Your task to perform on an android device: Open notification settings Image 0: 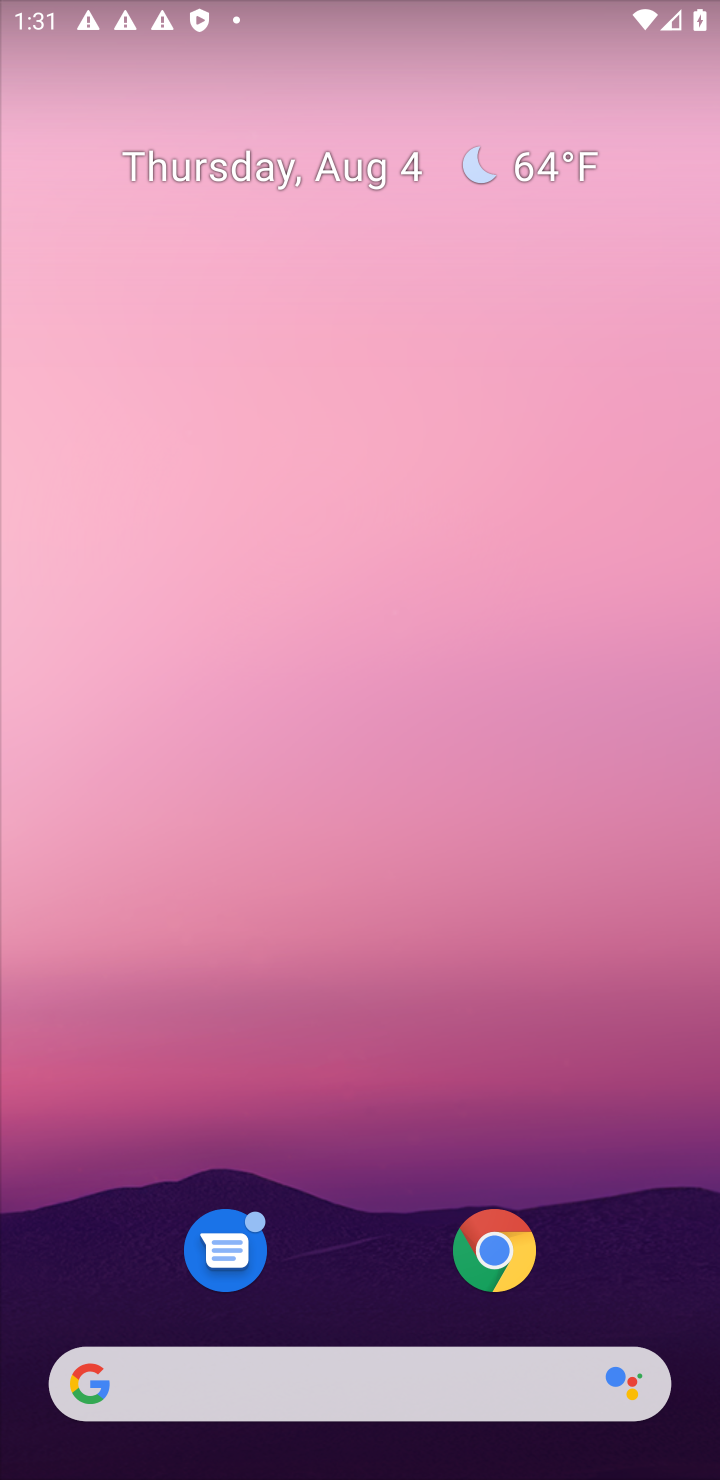
Step 0: drag from (376, 59) to (441, 31)
Your task to perform on an android device: Open notification settings Image 1: 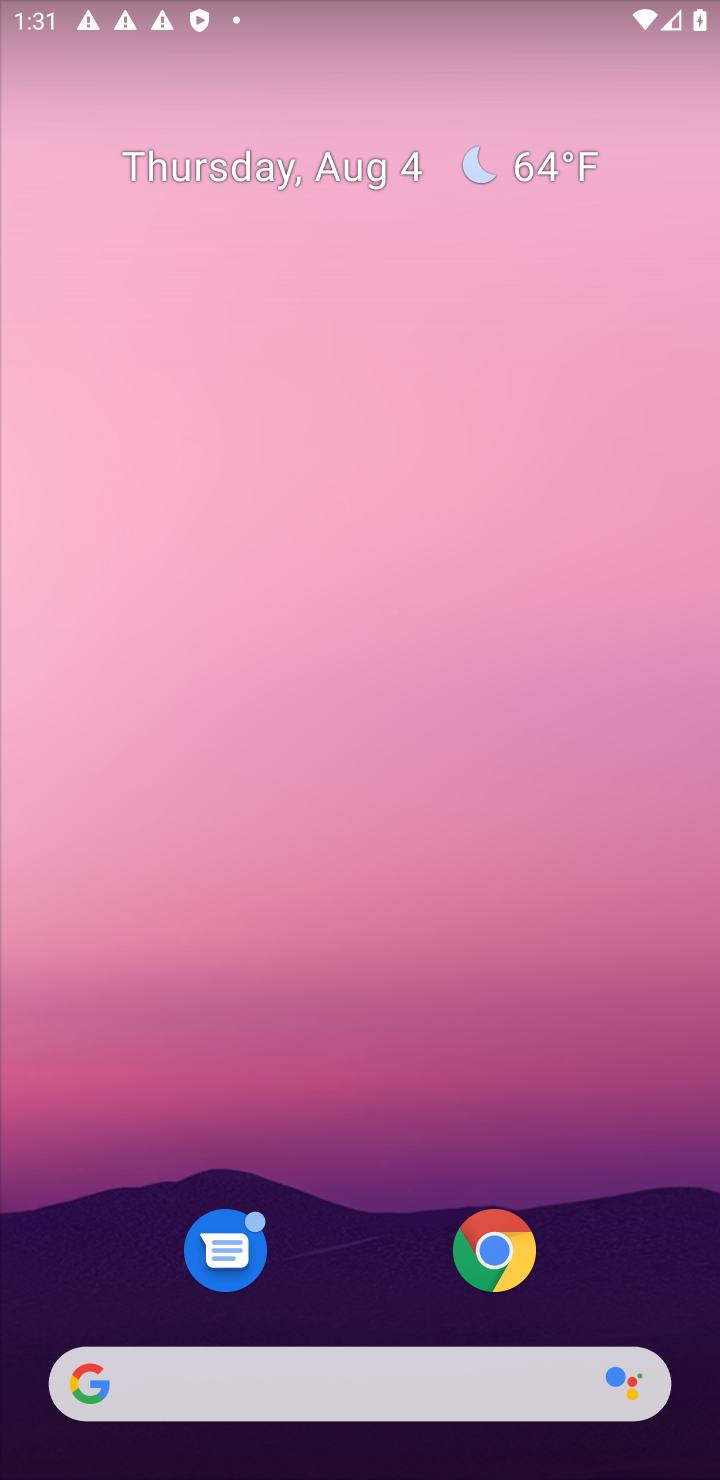
Step 1: drag from (394, 1175) to (394, 373)
Your task to perform on an android device: Open notification settings Image 2: 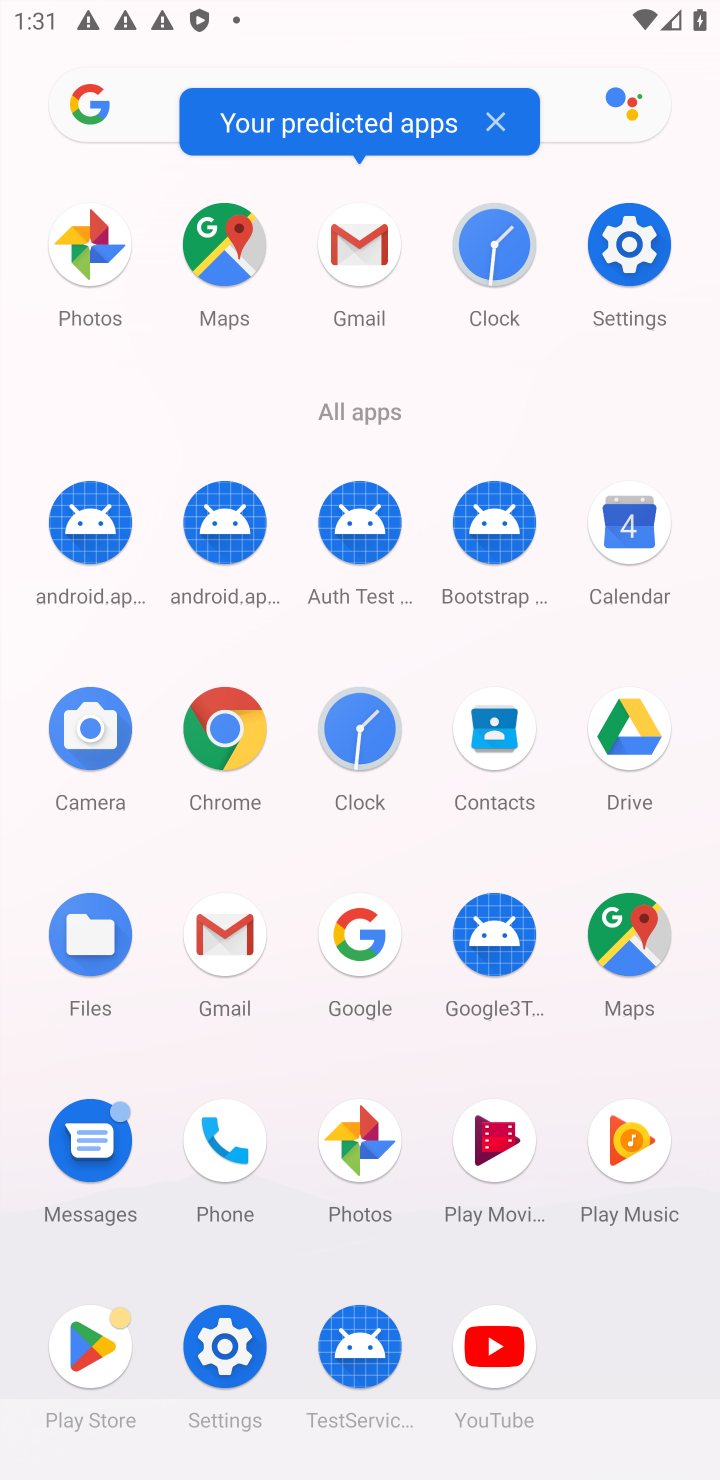
Step 2: click (619, 245)
Your task to perform on an android device: Open notification settings Image 3: 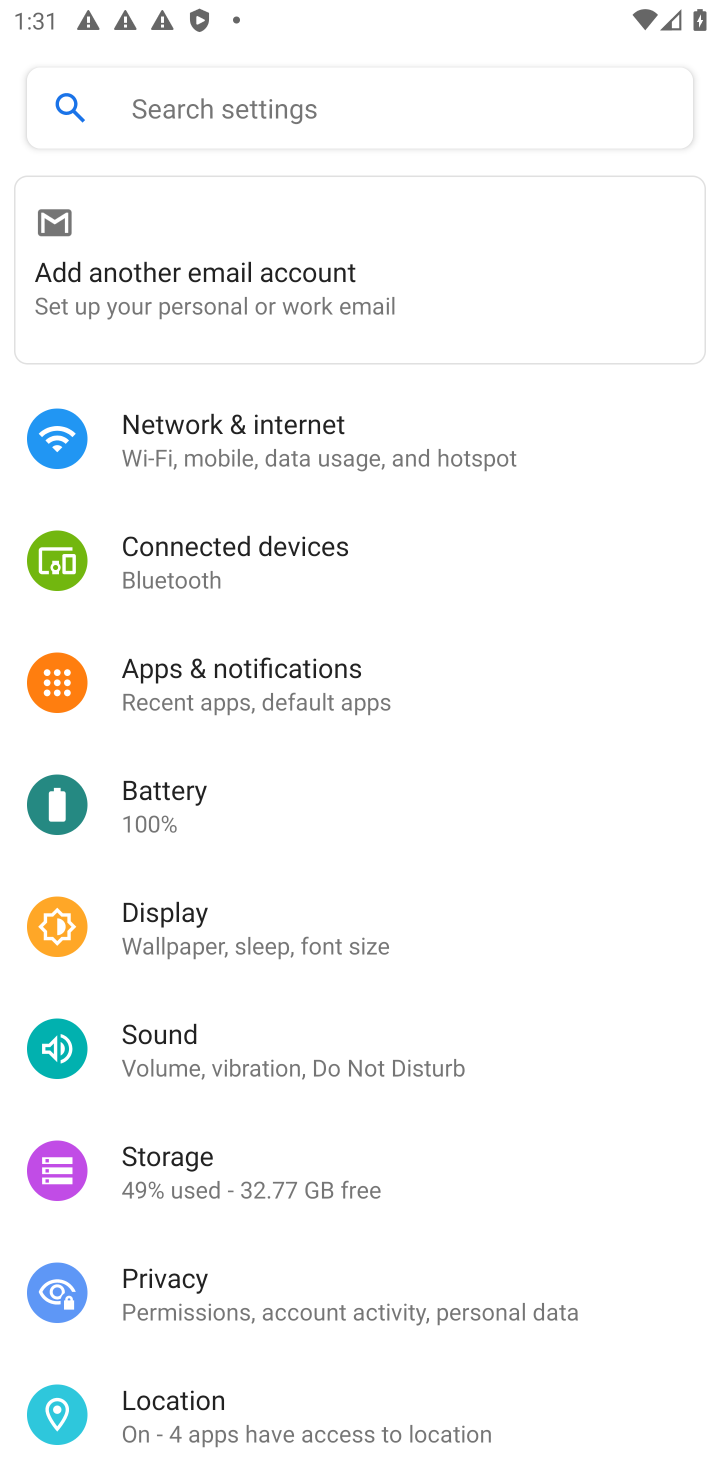
Step 3: click (283, 684)
Your task to perform on an android device: Open notification settings Image 4: 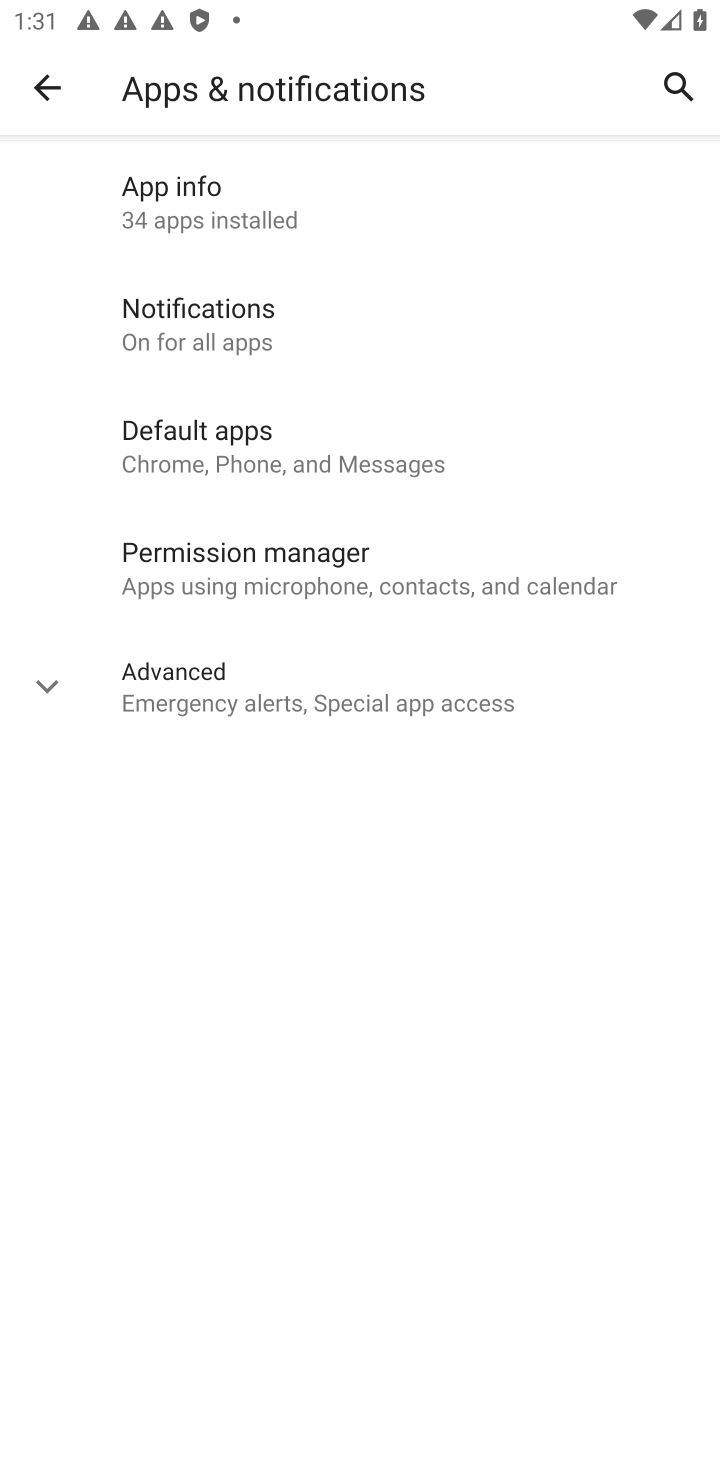
Step 4: click (233, 303)
Your task to perform on an android device: Open notification settings Image 5: 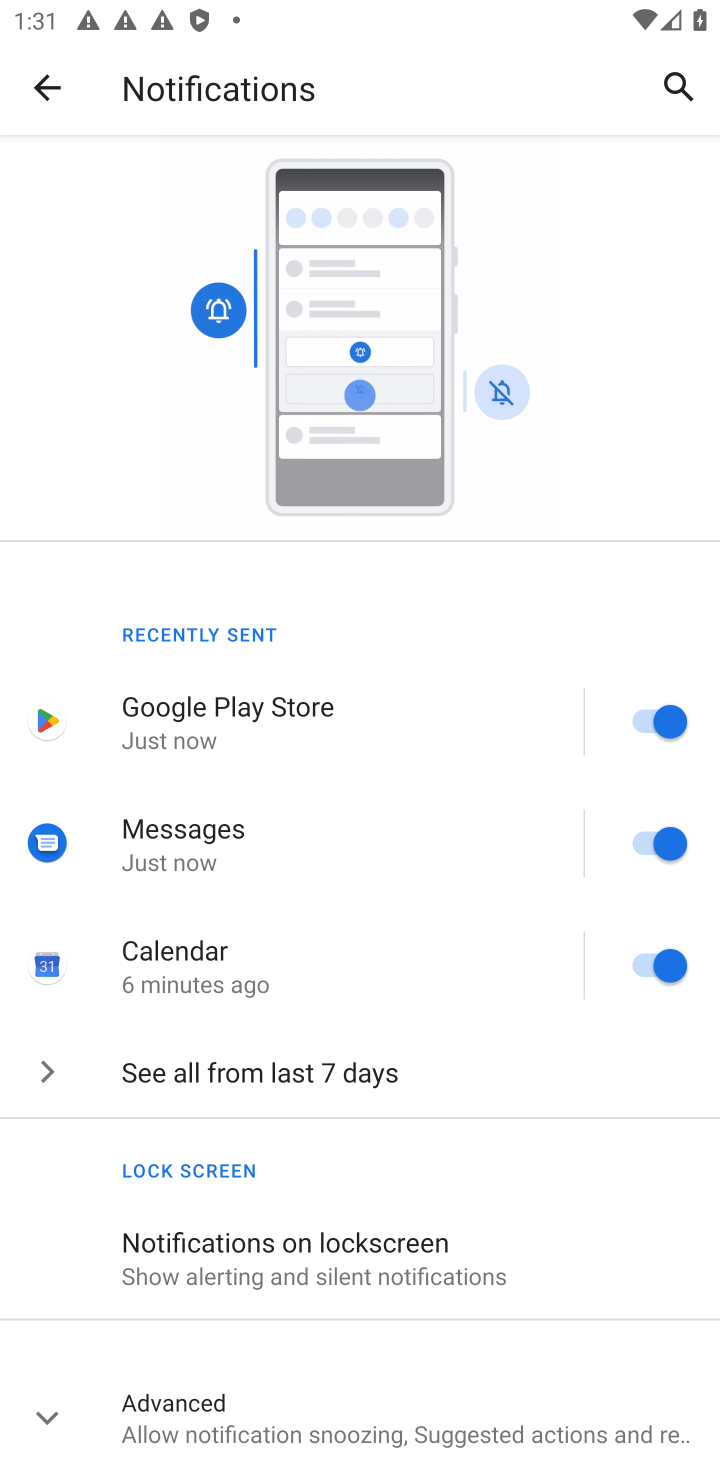
Step 5: task complete